Your task to perform on an android device: Go to CNN.com Image 0: 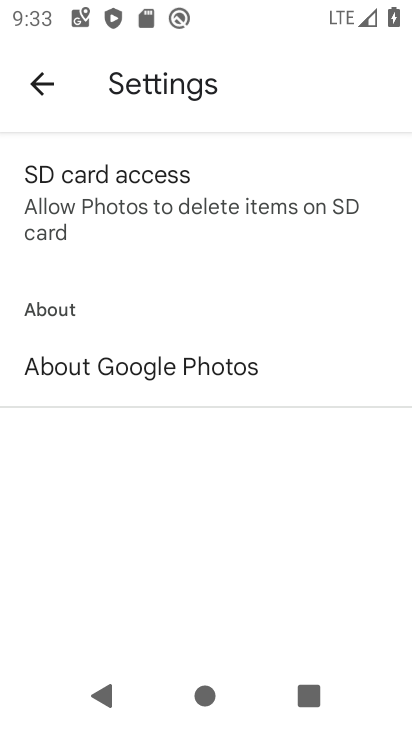
Step 0: press home button
Your task to perform on an android device: Go to CNN.com Image 1: 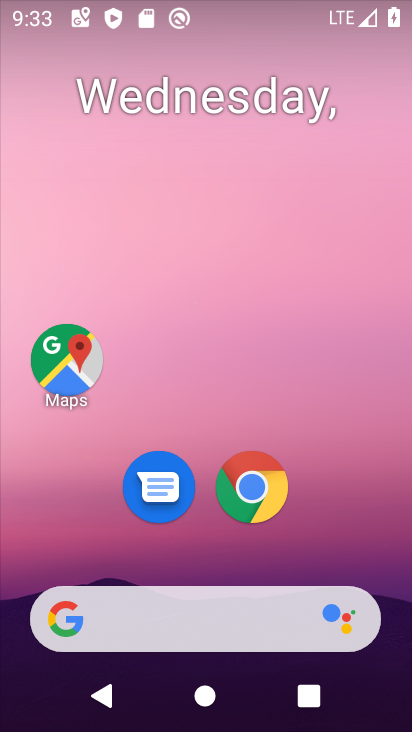
Step 1: click (253, 491)
Your task to perform on an android device: Go to CNN.com Image 2: 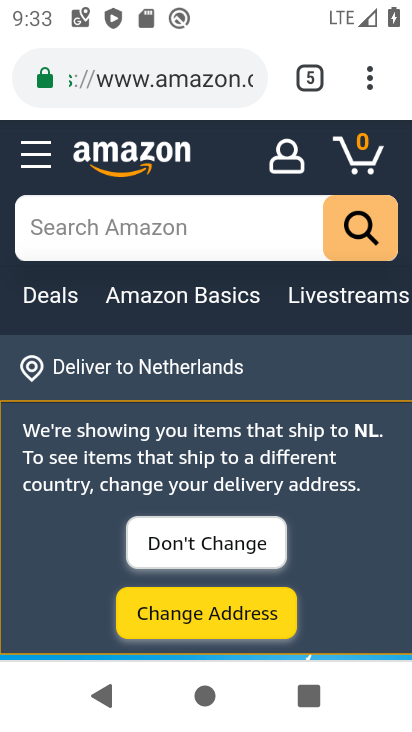
Step 2: click (365, 71)
Your task to perform on an android device: Go to CNN.com Image 3: 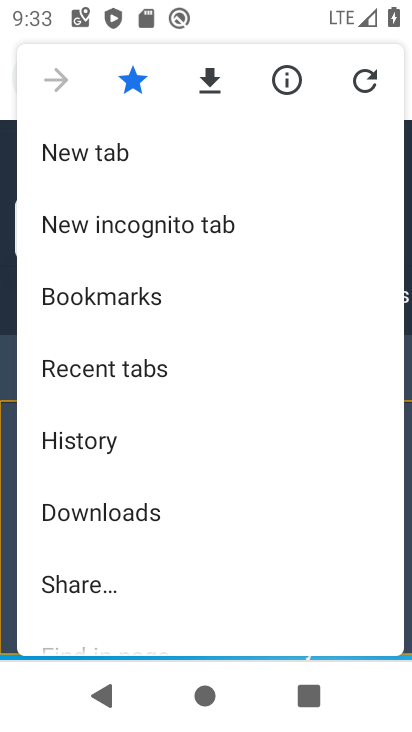
Step 3: click (84, 144)
Your task to perform on an android device: Go to CNN.com Image 4: 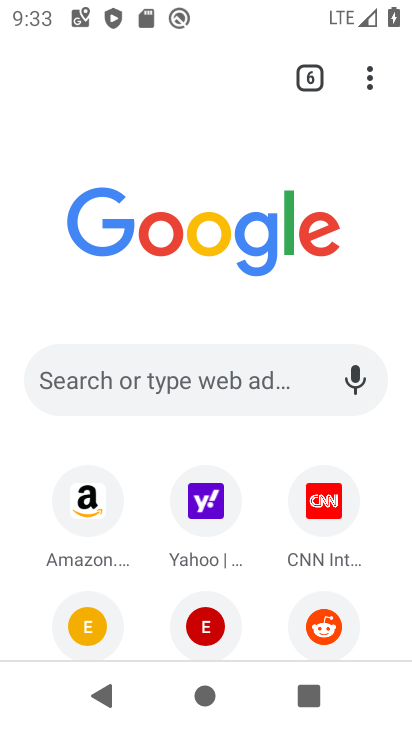
Step 4: click (200, 370)
Your task to perform on an android device: Go to CNN.com Image 5: 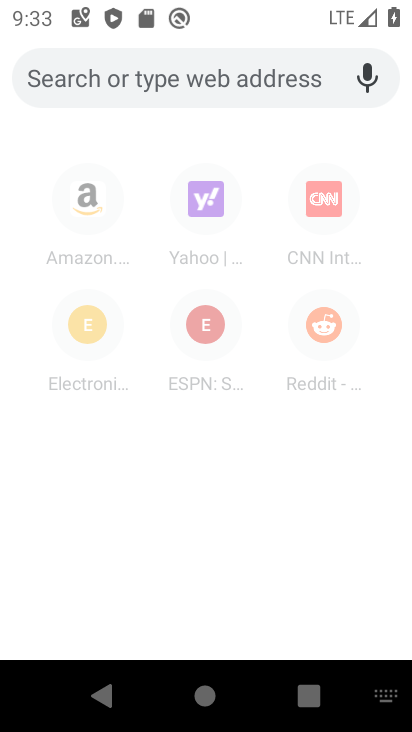
Step 5: type "cnn.com"
Your task to perform on an android device: Go to CNN.com Image 6: 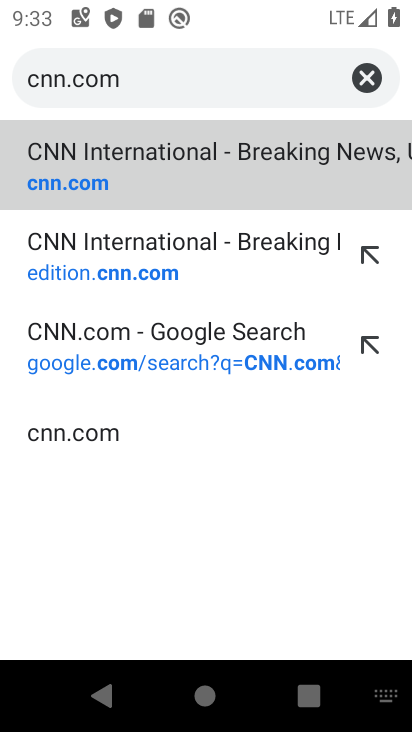
Step 6: click (157, 152)
Your task to perform on an android device: Go to CNN.com Image 7: 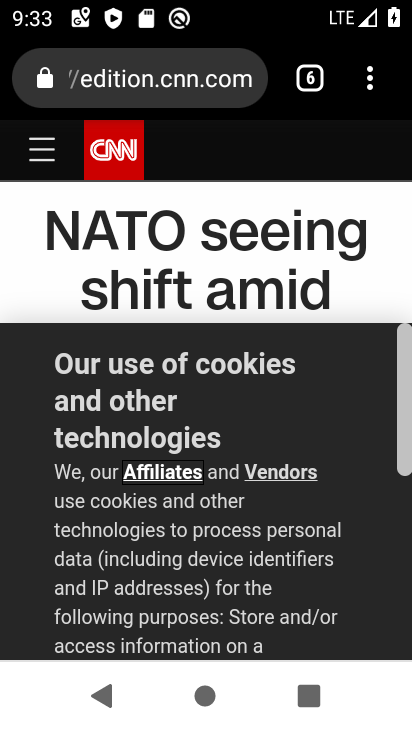
Step 7: task complete